Your task to perform on an android device: set default search engine in the chrome app Image 0: 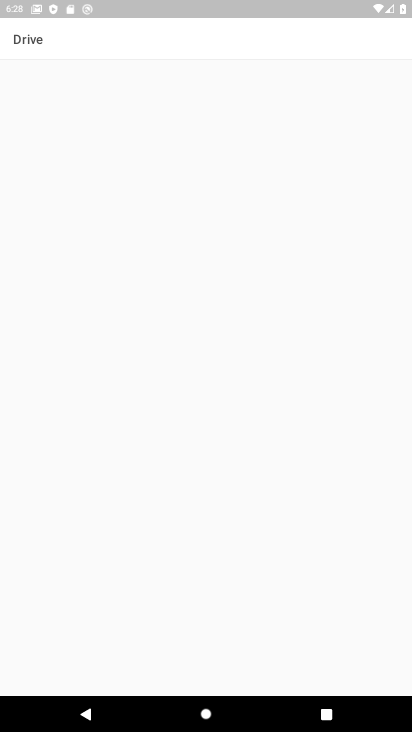
Step 0: press home button
Your task to perform on an android device: set default search engine in the chrome app Image 1: 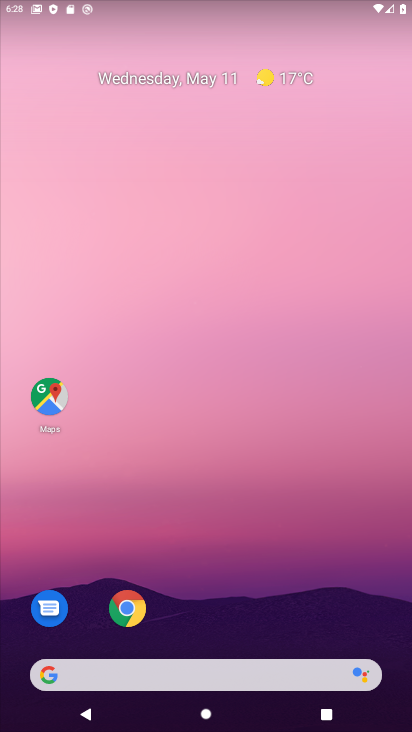
Step 1: click (135, 606)
Your task to perform on an android device: set default search engine in the chrome app Image 2: 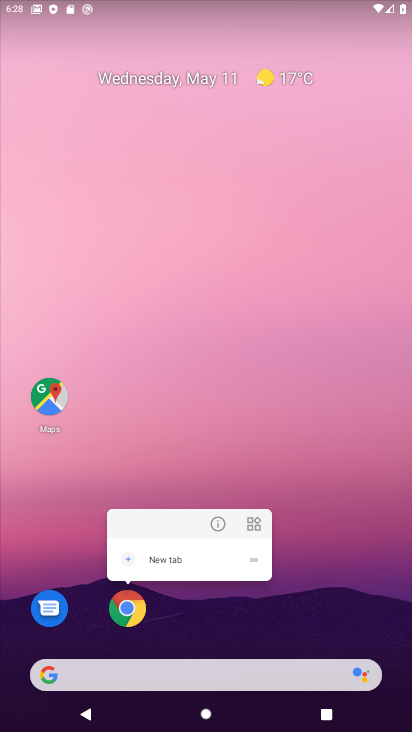
Step 2: click (135, 606)
Your task to perform on an android device: set default search engine in the chrome app Image 3: 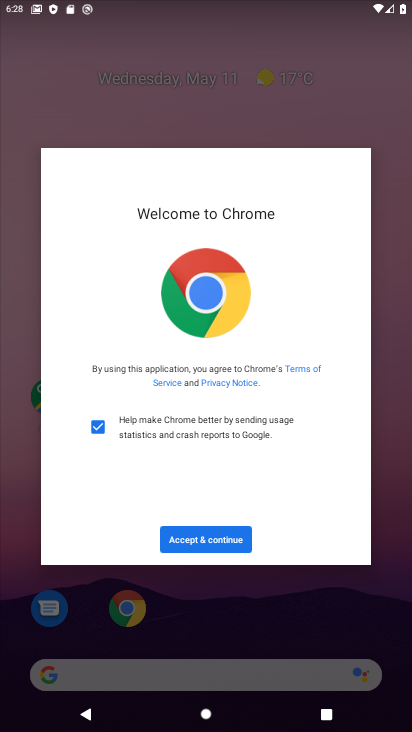
Step 3: click (209, 549)
Your task to perform on an android device: set default search engine in the chrome app Image 4: 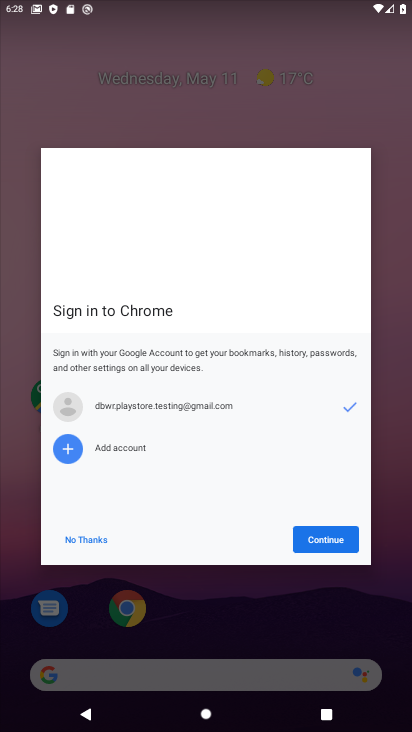
Step 4: click (349, 543)
Your task to perform on an android device: set default search engine in the chrome app Image 5: 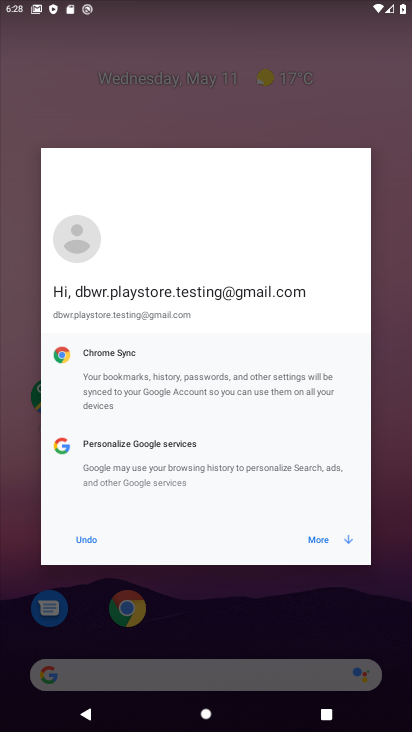
Step 5: click (349, 543)
Your task to perform on an android device: set default search engine in the chrome app Image 6: 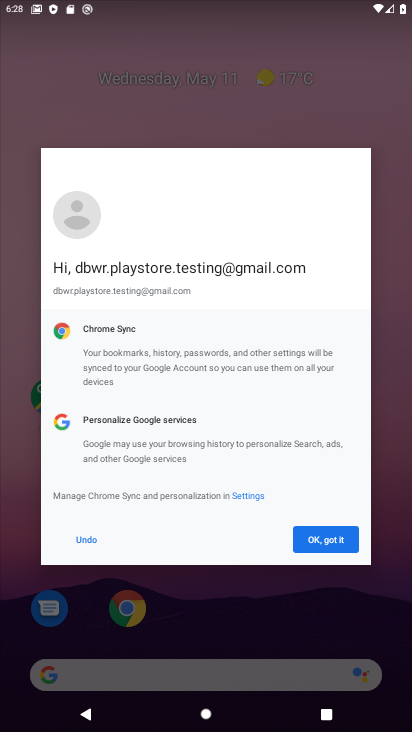
Step 6: click (349, 543)
Your task to perform on an android device: set default search engine in the chrome app Image 7: 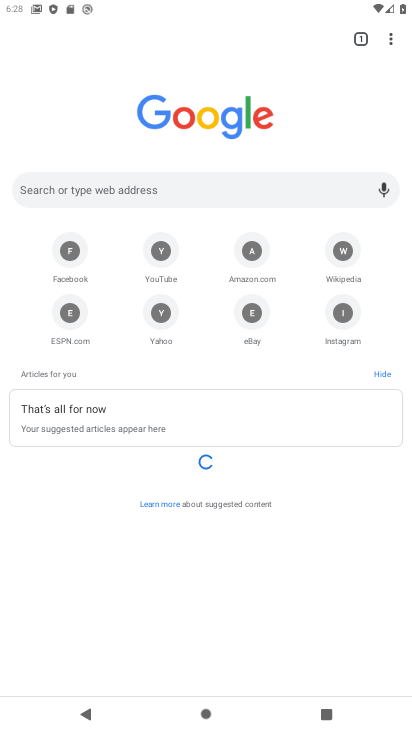
Step 7: click (388, 38)
Your task to perform on an android device: set default search engine in the chrome app Image 8: 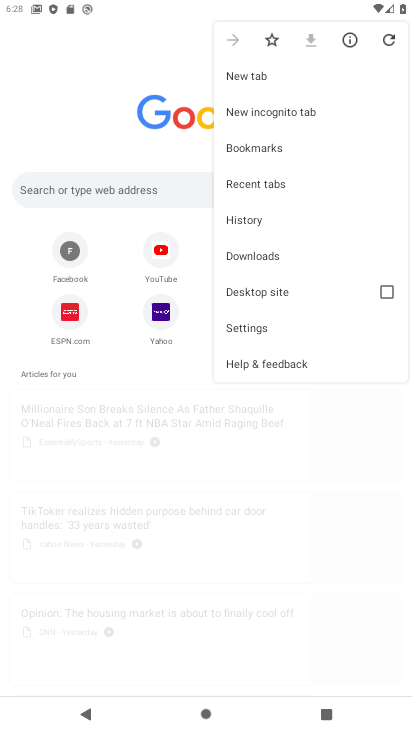
Step 8: click (282, 317)
Your task to perform on an android device: set default search engine in the chrome app Image 9: 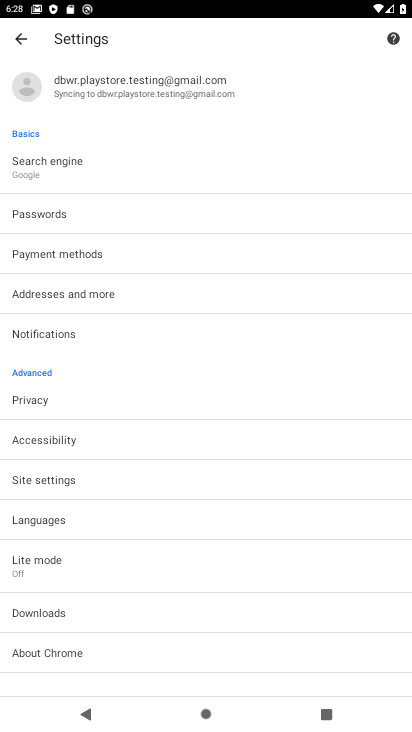
Step 9: click (190, 161)
Your task to perform on an android device: set default search engine in the chrome app Image 10: 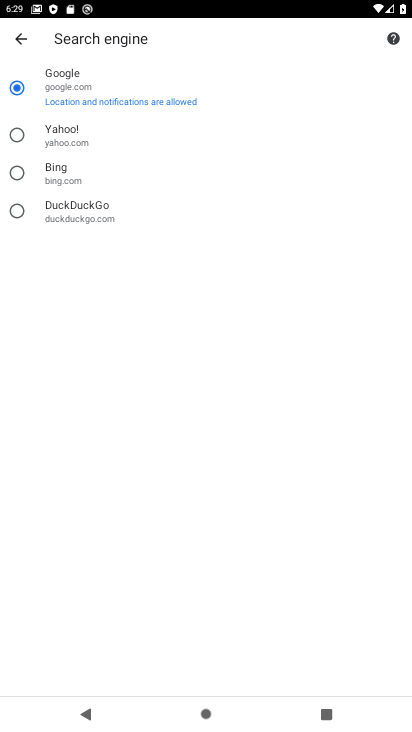
Step 10: click (148, 218)
Your task to perform on an android device: set default search engine in the chrome app Image 11: 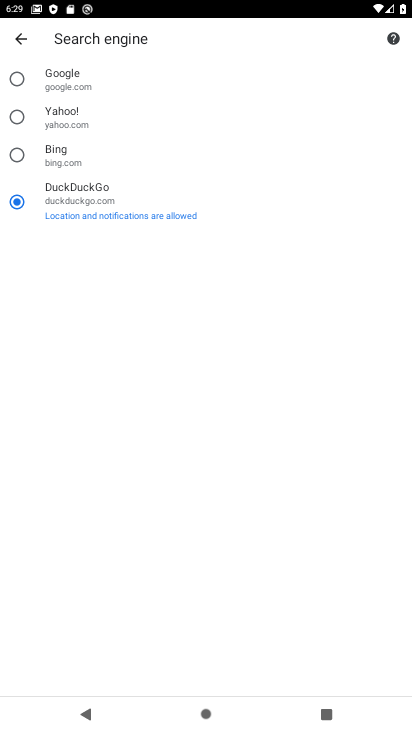
Step 11: task complete